Your task to perform on an android device: What is the recent news? Image 0: 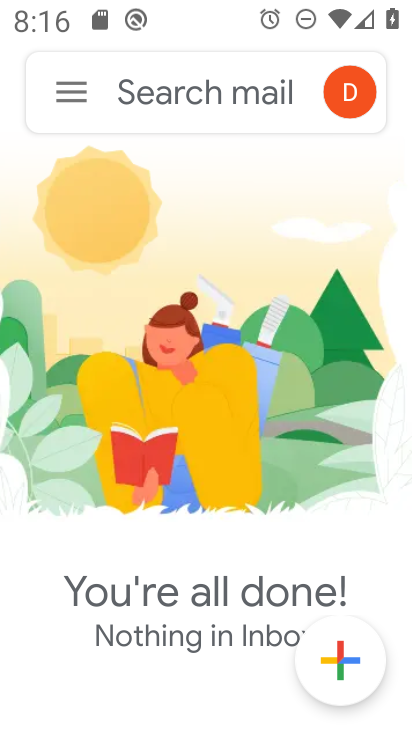
Step 0: press home button
Your task to perform on an android device: What is the recent news? Image 1: 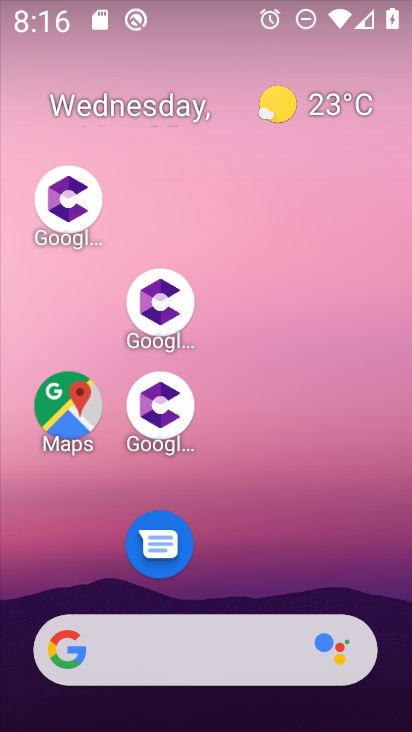
Step 1: task complete